Your task to perform on an android device: toggle show notifications on the lock screen Image 0: 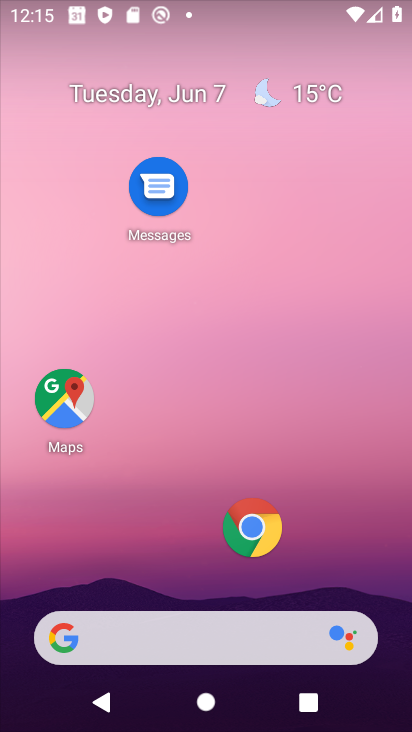
Step 0: drag from (246, 613) to (277, 151)
Your task to perform on an android device: toggle show notifications on the lock screen Image 1: 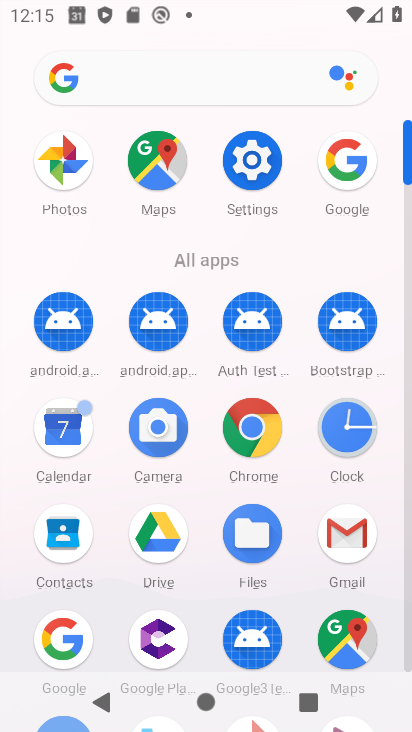
Step 1: click (256, 151)
Your task to perform on an android device: toggle show notifications on the lock screen Image 2: 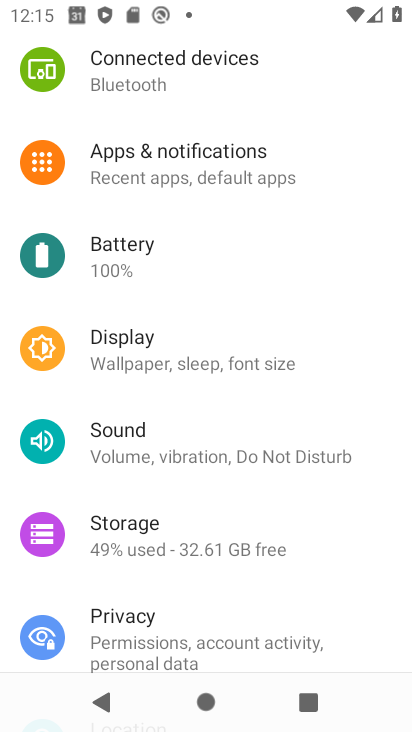
Step 2: drag from (140, 620) to (163, 248)
Your task to perform on an android device: toggle show notifications on the lock screen Image 3: 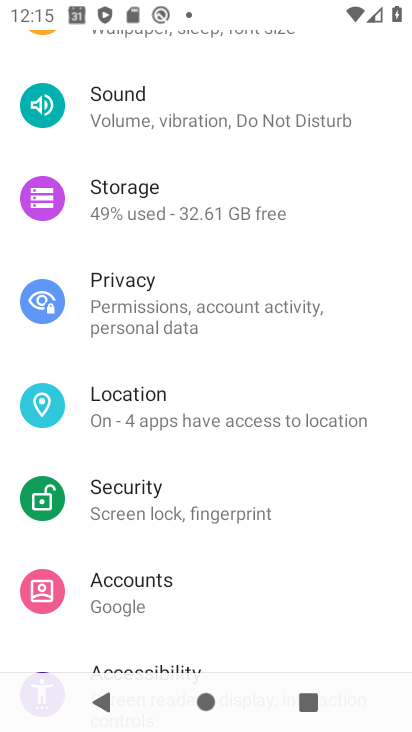
Step 3: drag from (185, 605) to (226, 144)
Your task to perform on an android device: toggle show notifications on the lock screen Image 4: 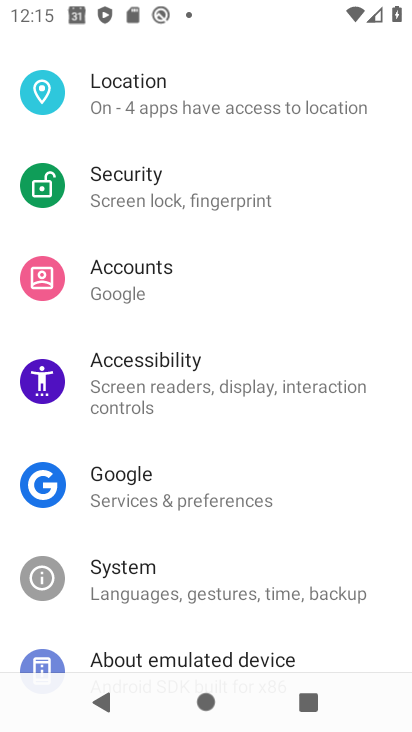
Step 4: drag from (131, 93) to (169, 452)
Your task to perform on an android device: toggle show notifications on the lock screen Image 5: 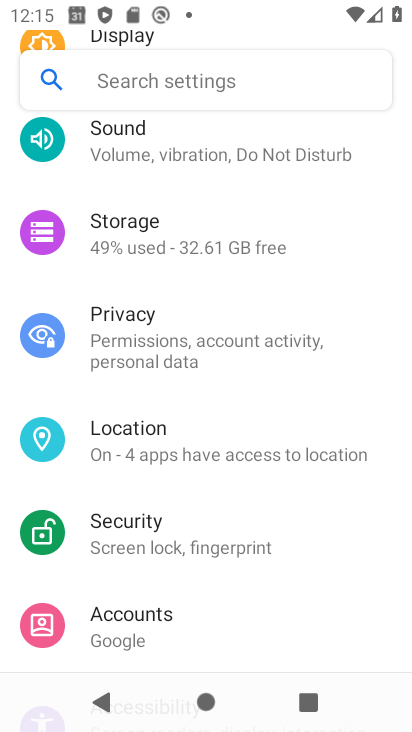
Step 5: click (137, 329)
Your task to perform on an android device: toggle show notifications on the lock screen Image 6: 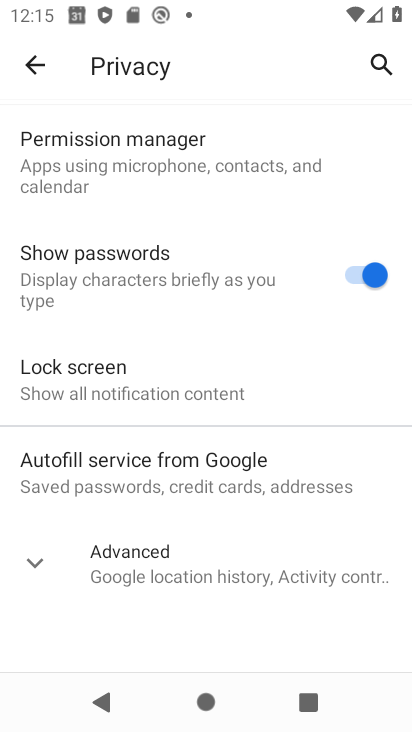
Step 6: click (98, 388)
Your task to perform on an android device: toggle show notifications on the lock screen Image 7: 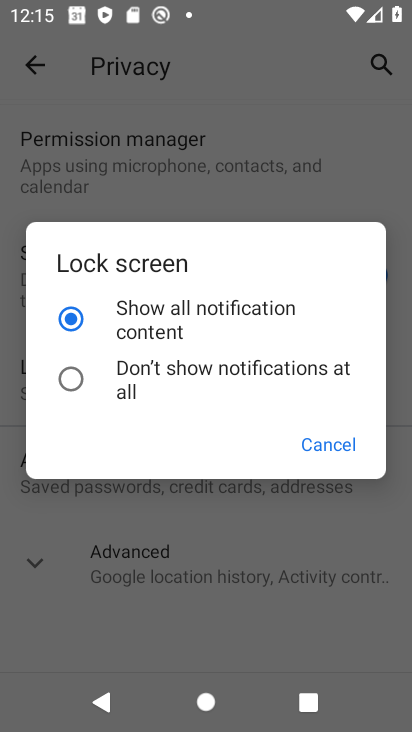
Step 7: click (102, 368)
Your task to perform on an android device: toggle show notifications on the lock screen Image 8: 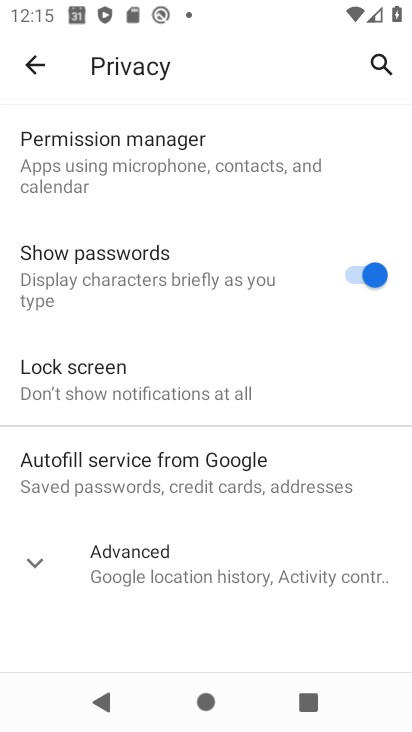
Step 8: task complete